Your task to perform on an android device: open a bookmark in the chrome app Image 0: 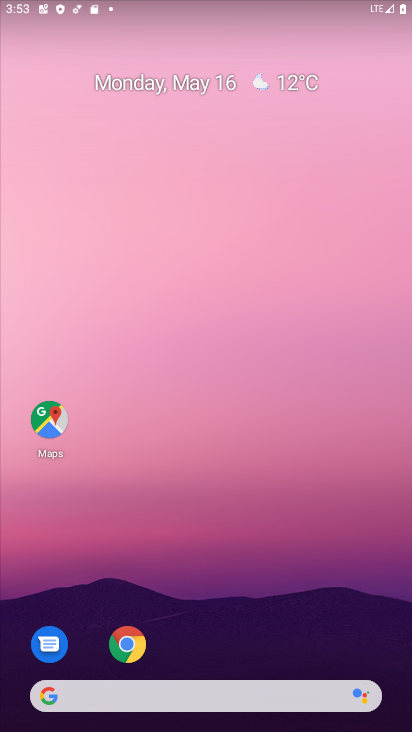
Step 0: click (119, 634)
Your task to perform on an android device: open a bookmark in the chrome app Image 1: 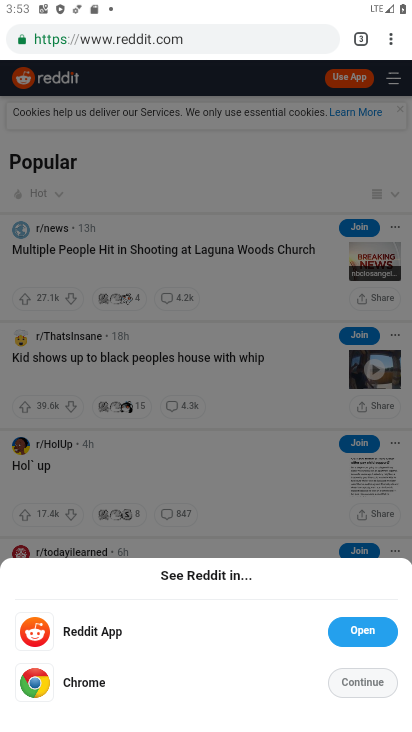
Step 1: drag from (390, 42) to (264, 198)
Your task to perform on an android device: open a bookmark in the chrome app Image 2: 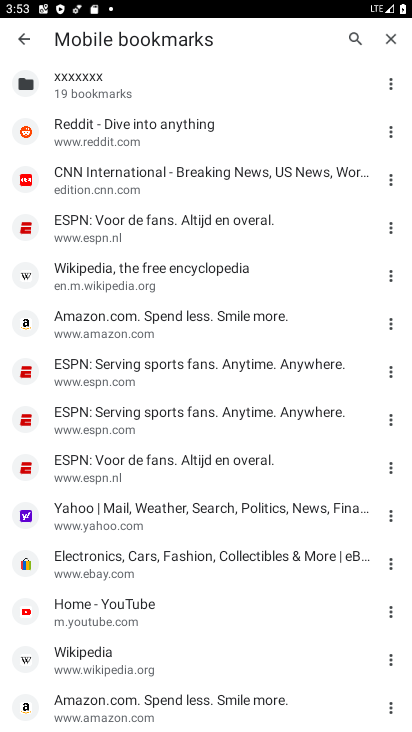
Step 2: click (96, 181)
Your task to perform on an android device: open a bookmark in the chrome app Image 3: 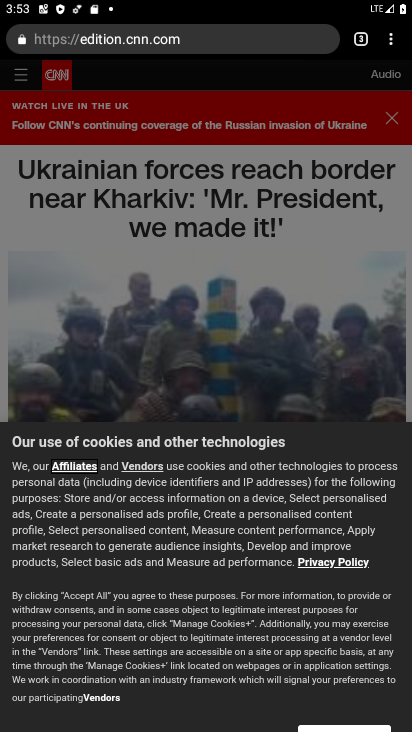
Step 3: task complete